Your task to perform on an android device: Go to sound settings Image 0: 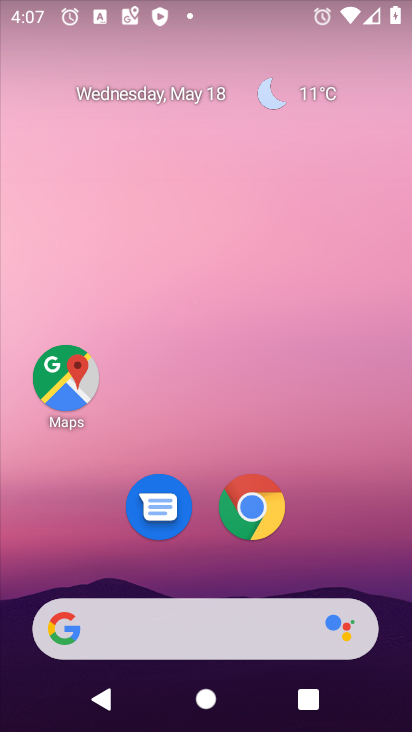
Step 0: drag from (405, 621) to (308, 159)
Your task to perform on an android device: Go to sound settings Image 1: 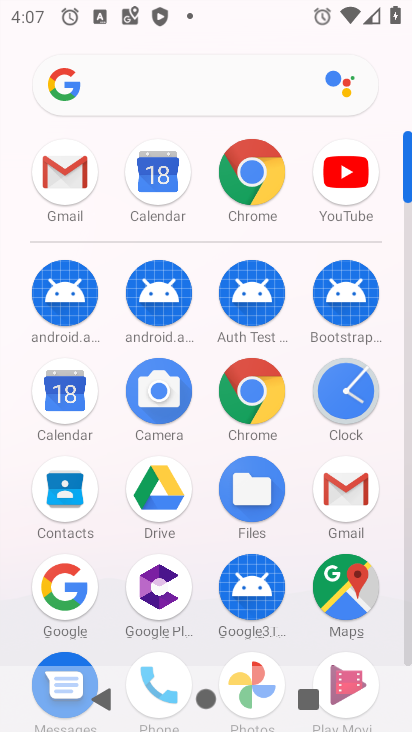
Step 1: click (406, 654)
Your task to perform on an android device: Go to sound settings Image 2: 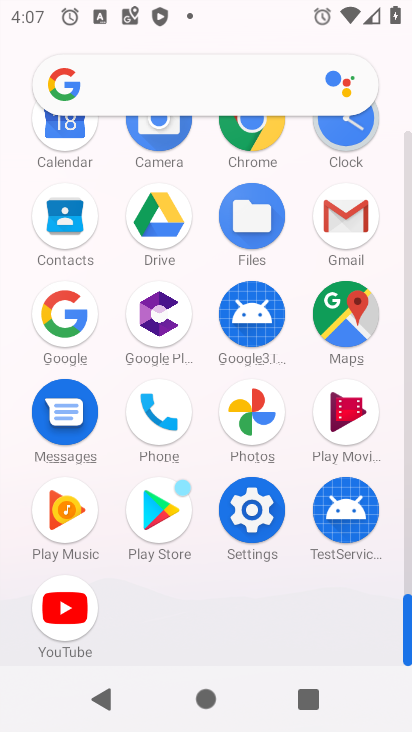
Step 2: click (247, 506)
Your task to perform on an android device: Go to sound settings Image 3: 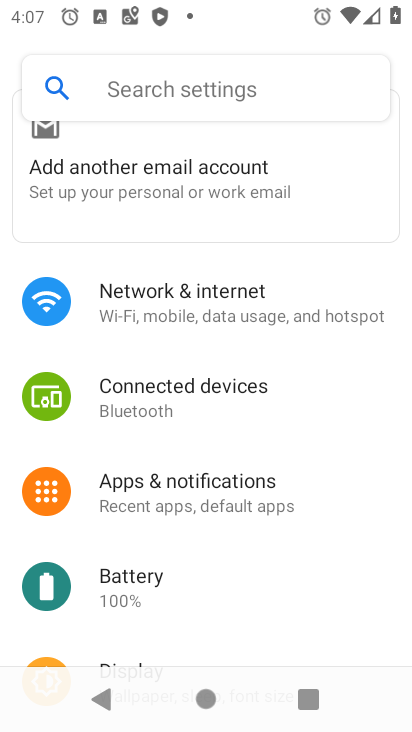
Step 3: drag from (301, 643) to (299, 355)
Your task to perform on an android device: Go to sound settings Image 4: 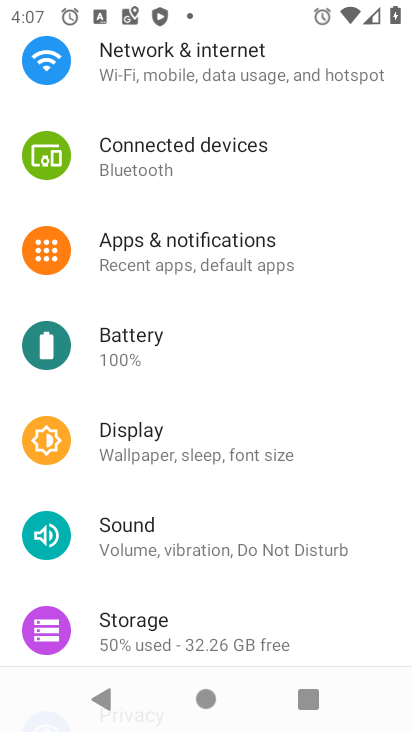
Step 4: click (138, 524)
Your task to perform on an android device: Go to sound settings Image 5: 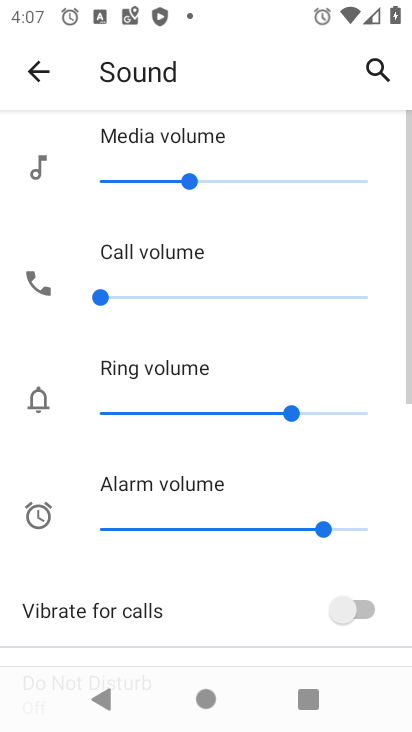
Step 5: drag from (278, 586) to (304, 209)
Your task to perform on an android device: Go to sound settings Image 6: 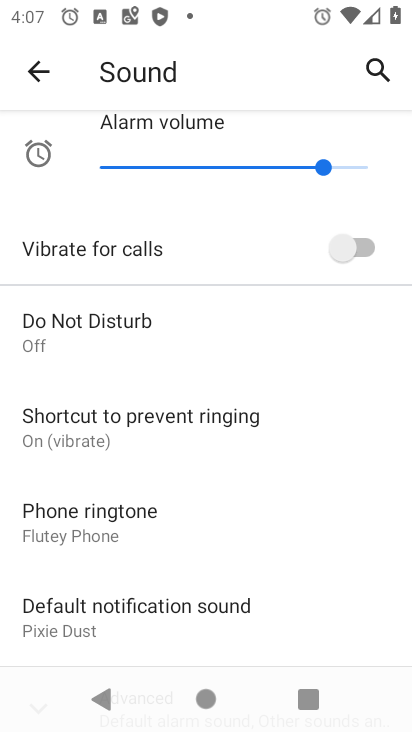
Step 6: drag from (299, 585) to (293, 217)
Your task to perform on an android device: Go to sound settings Image 7: 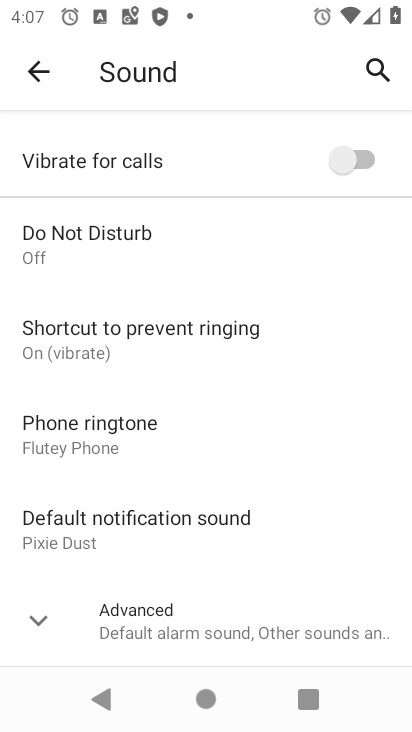
Step 7: click (29, 613)
Your task to perform on an android device: Go to sound settings Image 8: 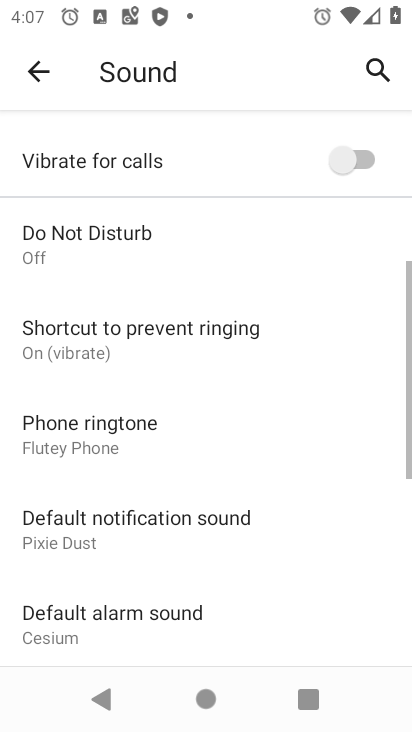
Step 8: task complete